Your task to perform on an android device: turn on data saver in the chrome app Image 0: 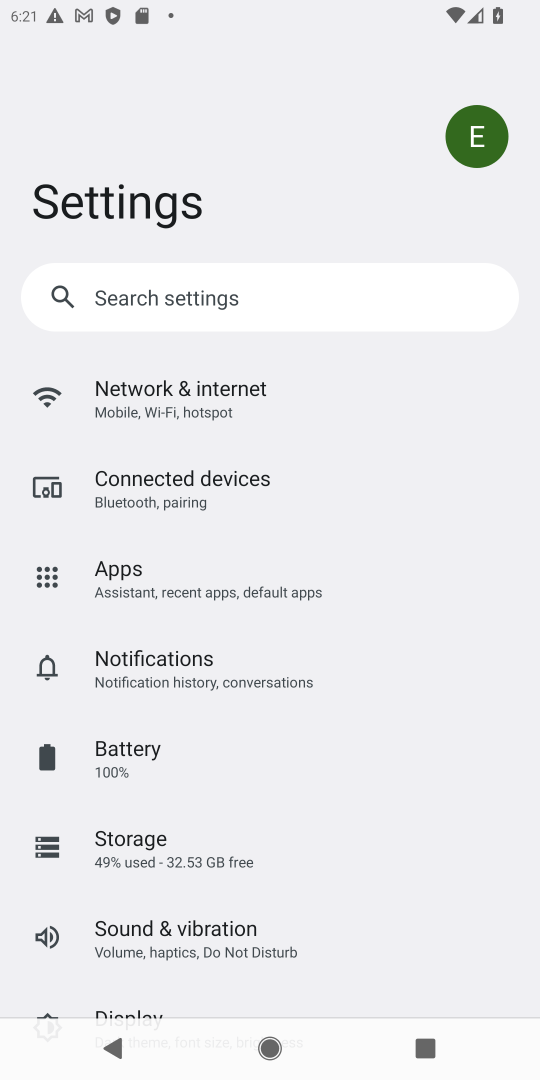
Step 0: press home button
Your task to perform on an android device: turn on data saver in the chrome app Image 1: 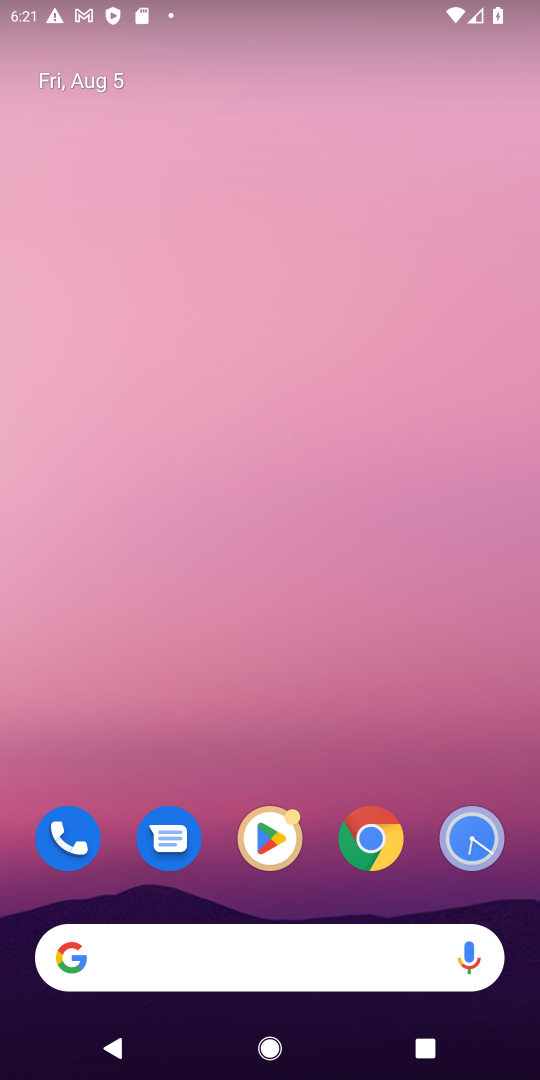
Step 1: click (392, 845)
Your task to perform on an android device: turn on data saver in the chrome app Image 2: 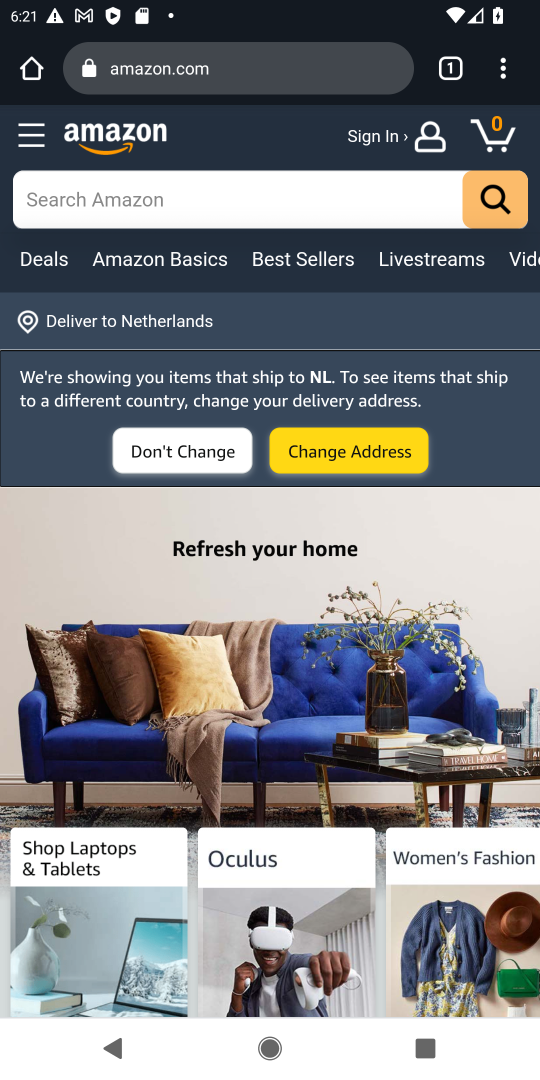
Step 2: click (515, 78)
Your task to perform on an android device: turn on data saver in the chrome app Image 3: 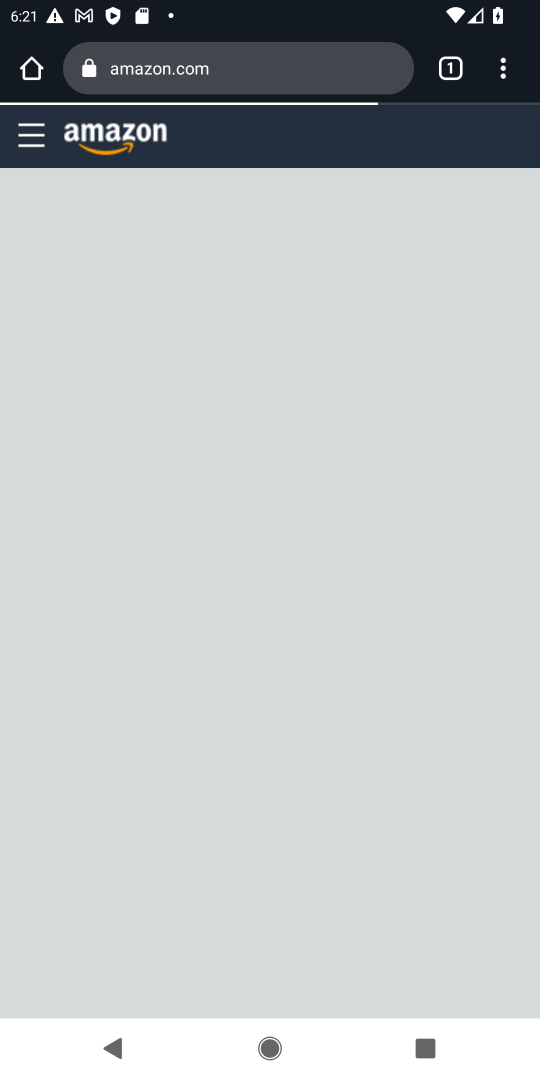
Step 3: drag from (511, 83) to (282, 861)
Your task to perform on an android device: turn on data saver in the chrome app Image 4: 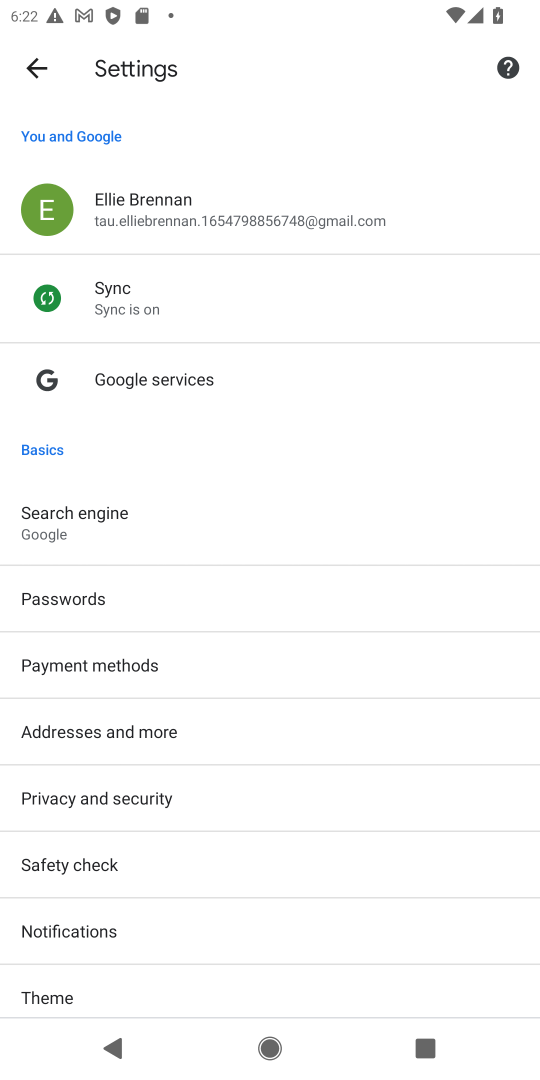
Step 4: drag from (343, 833) to (394, 309)
Your task to perform on an android device: turn on data saver in the chrome app Image 5: 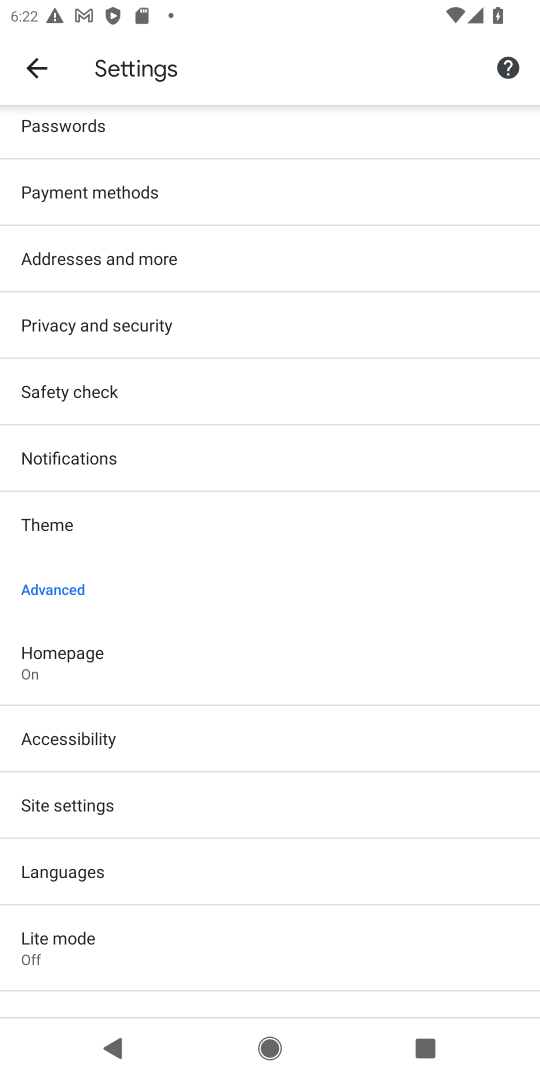
Step 5: click (92, 952)
Your task to perform on an android device: turn on data saver in the chrome app Image 6: 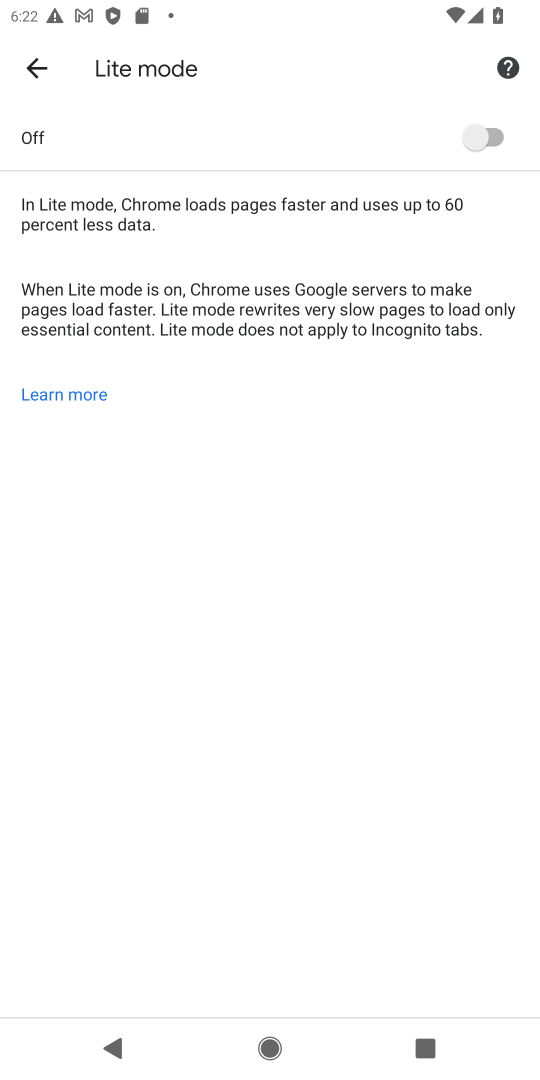
Step 6: click (493, 148)
Your task to perform on an android device: turn on data saver in the chrome app Image 7: 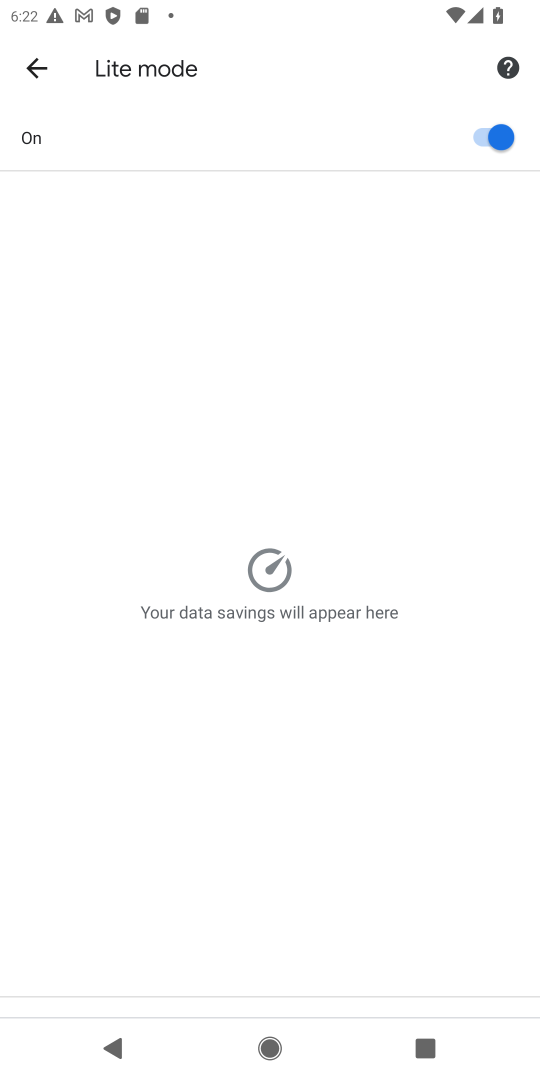
Step 7: task complete